Your task to perform on an android device: change notifications settings Image 0: 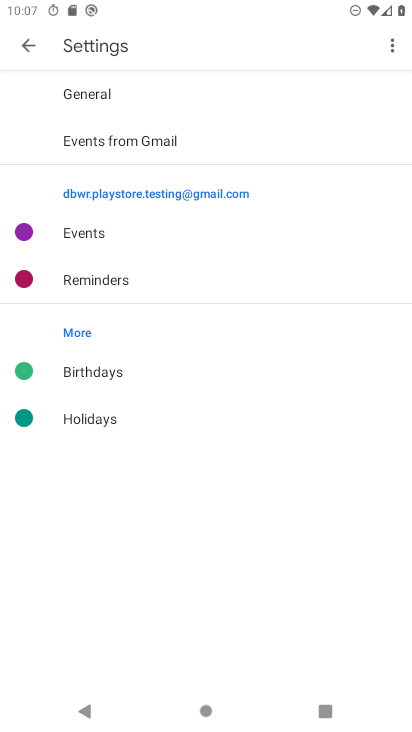
Step 0: press home button
Your task to perform on an android device: change notifications settings Image 1: 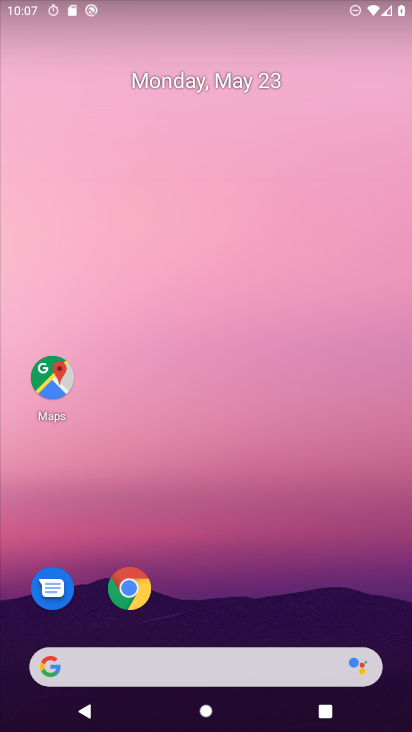
Step 1: drag from (395, 711) to (381, 360)
Your task to perform on an android device: change notifications settings Image 2: 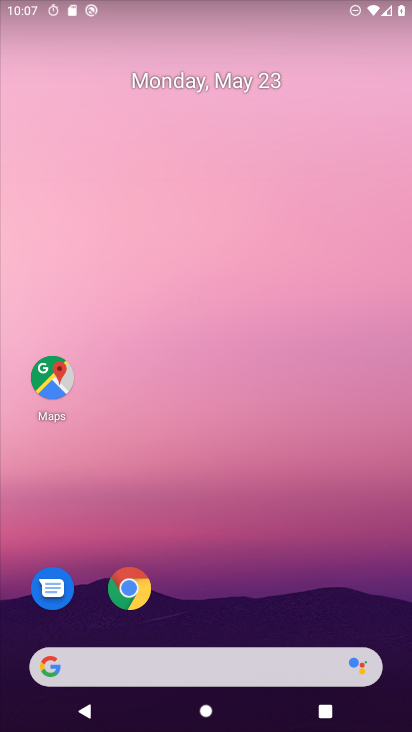
Step 2: drag from (396, 714) to (335, 159)
Your task to perform on an android device: change notifications settings Image 3: 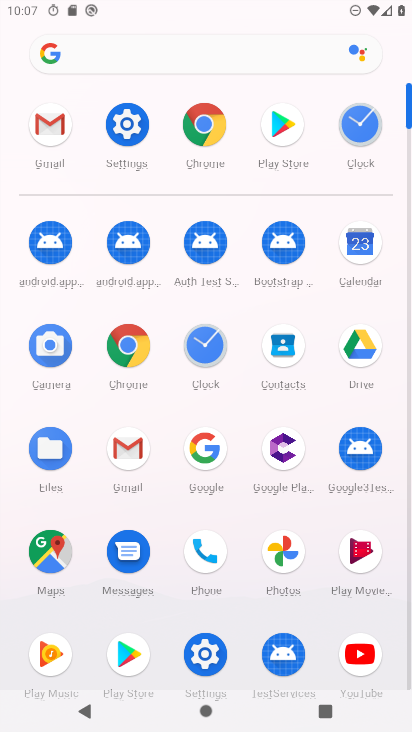
Step 3: click (207, 641)
Your task to perform on an android device: change notifications settings Image 4: 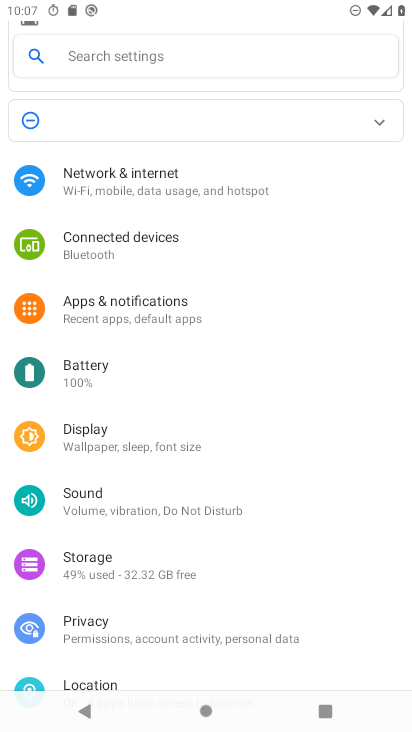
Step 4: click (133, 179)
Your task to perform on an android device: change notifications settings Image 5: 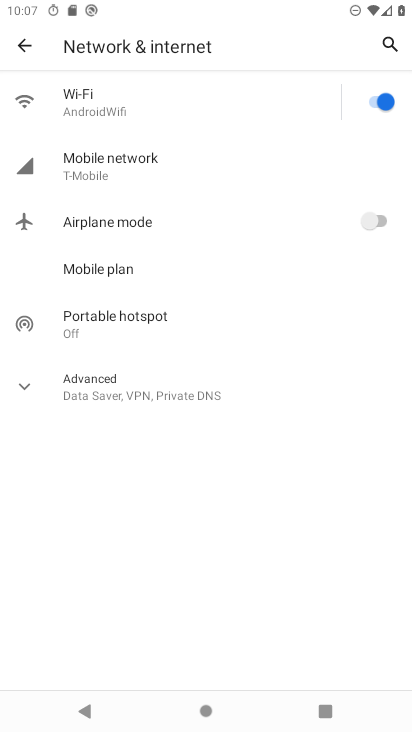
Step 5: click (23, 41)
Your task to perform on an android device: change notifications settings Image 6: 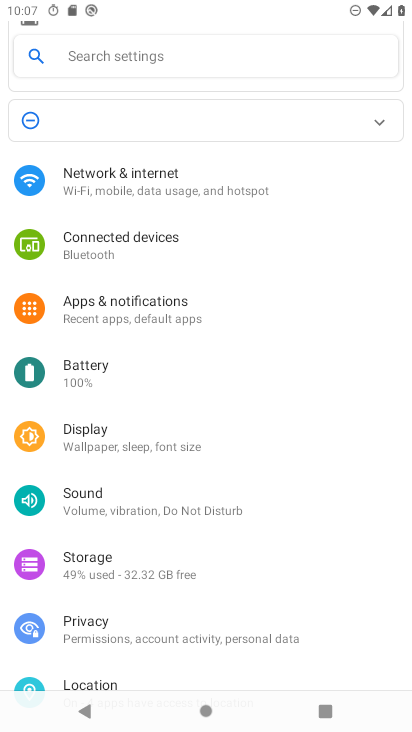
Step 6: click (157, 304)
Your task to perform on an android device: change notifications settings Image 7: 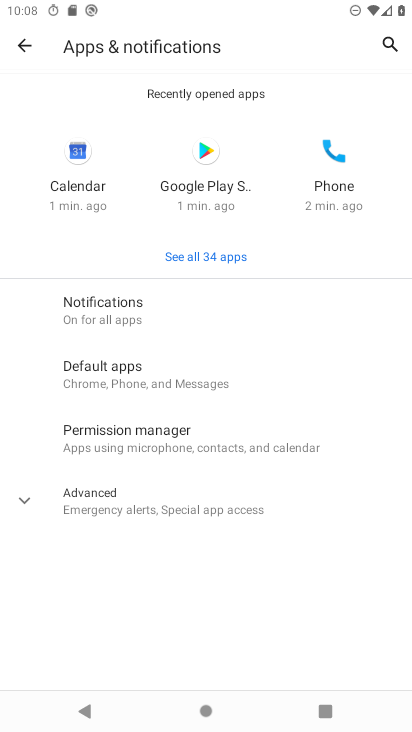
Step 7: click (134, 316)
Your task to perform on an android device: change notifications settings Image 8: 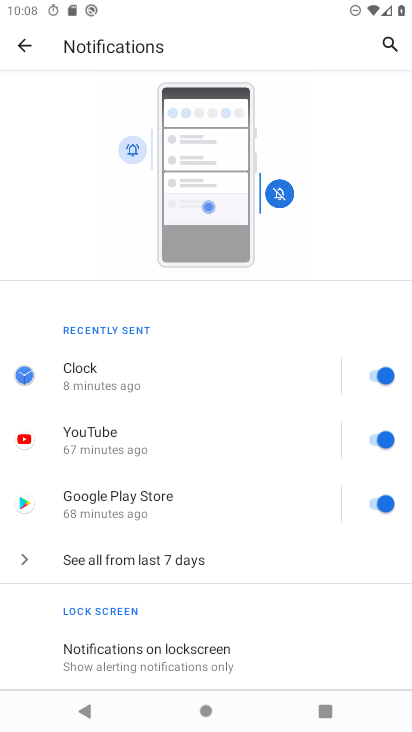
Step 8: drag from (288, 662) to (257, 347)
Your task to perform on an android device: change notifications settings Image 9: 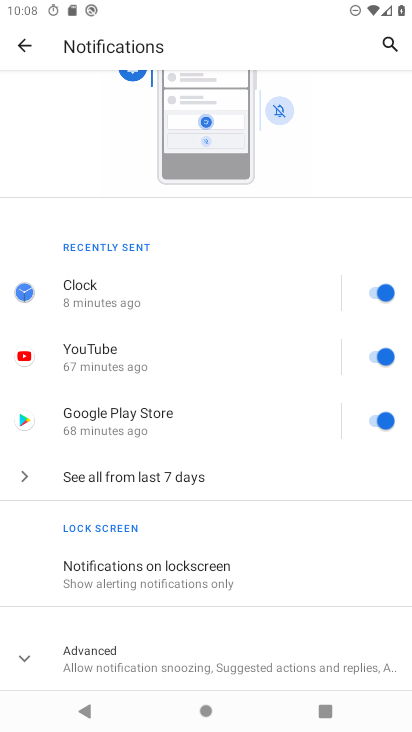
Step 9: click (27, 663)
Your task to perform on an android device: change notifications settings Image 10: 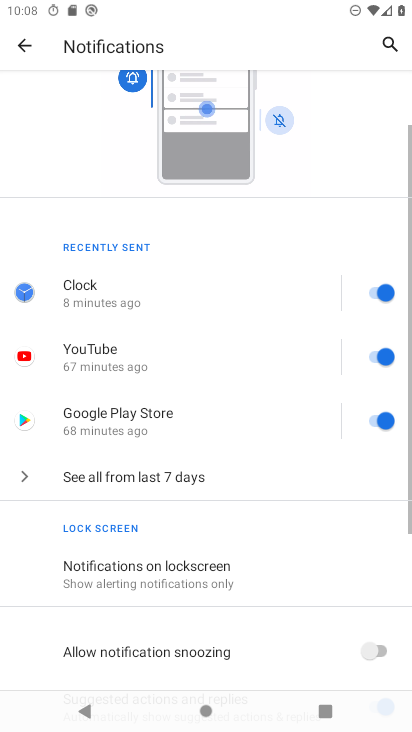
Step 10: task complete